Your task to perform on an android device: Open Chrome and go to settings Image 0: 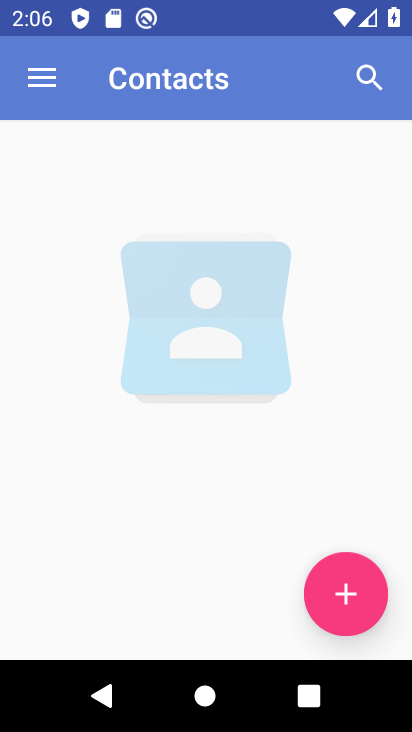
Step 0: drag from (201, 549) to (395, 128)
Your task to perform on an android device: Open Chrome and go to settings Image 1: 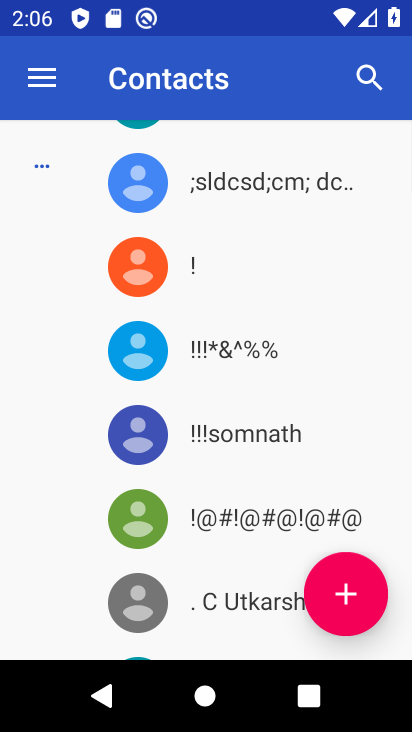
Step 1: press home button
Your task to perform on an android device: Open Chrome and go to settings Image 2: 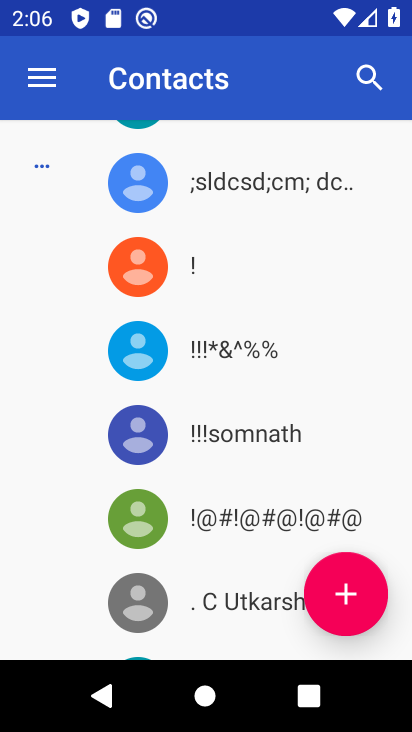
Step 2: drag from (395, 128) to (388, 675)
Your task to perform on an android device: Open Chrome and go to settings Image 3: 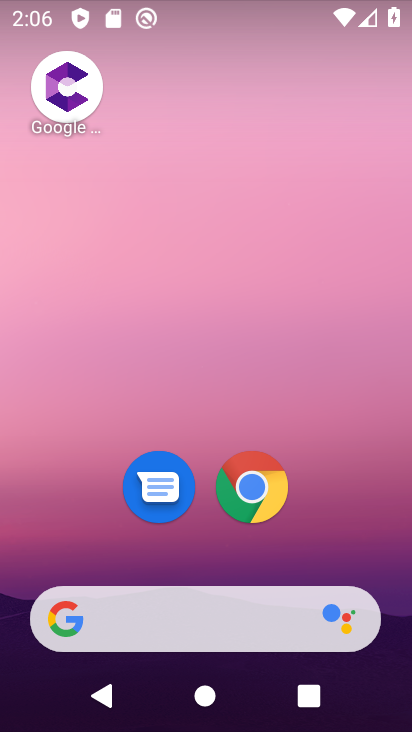
Step 3: click (243, 496)
Your task to perform on an android device: Open Chrome and go to settings Image 4: 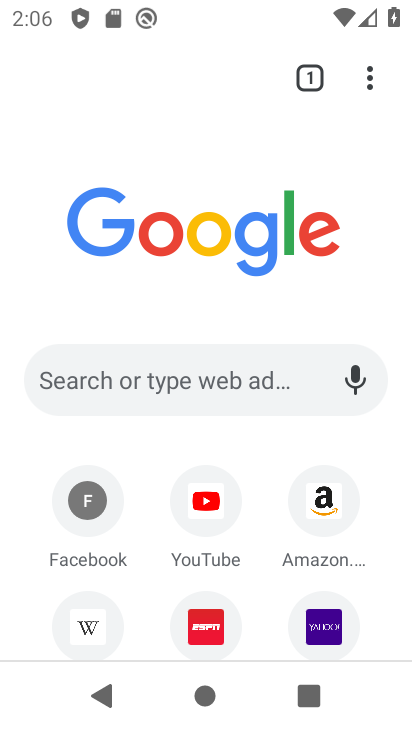
Step 4: click (369, 76)
Your task to perform on an android device: Open Chrome and go to settings Image 5: 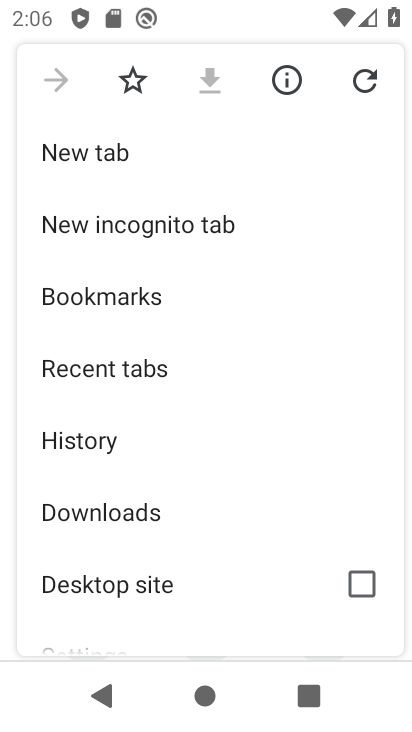
Step 5: drag from (183, 488) to (183, 163)
Your task to perform on an android device: Open Chrome and go to settings Image 6: 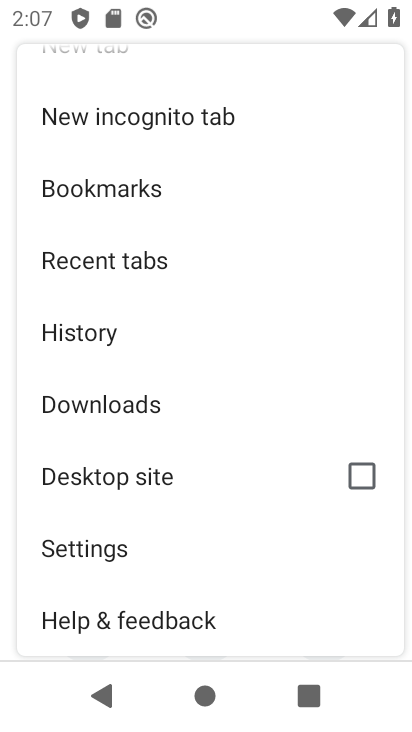
Step 6: click (110, 546)
Your task to perform on an android device: Open Chrome and go to settings Image 7: 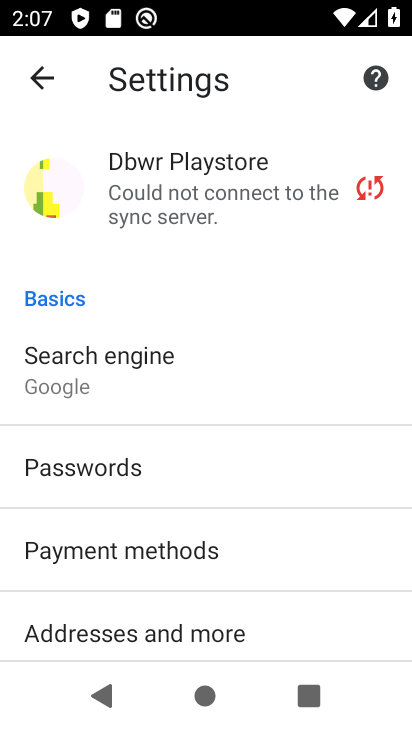
Step 7: task complete